Your task to perform on an android device: Open the calendar and show me this week's events Image 0: 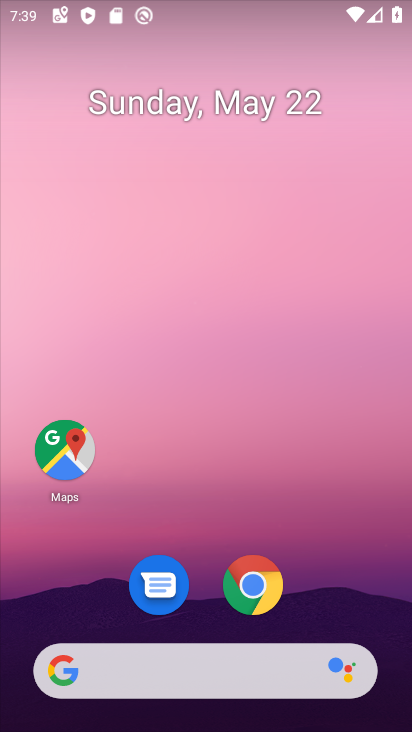
Step 0: drag from (228, 493) to (229, 20)
Your task to perform on an android device: Open the calendar and show me this week's events Image 1: 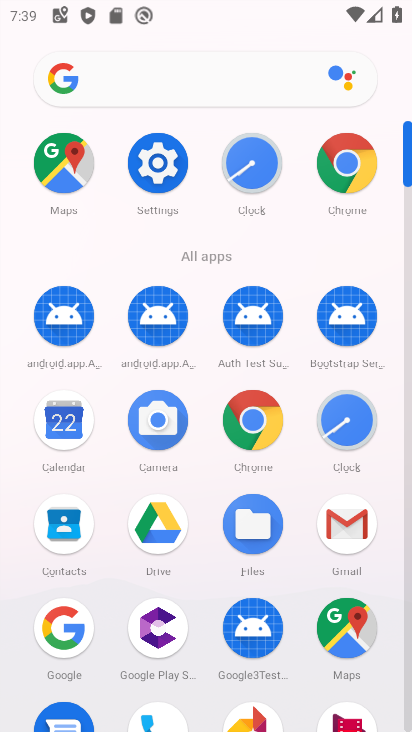
Step 1: click (62, 420)
Your task to perform on an android device: Open the calendar and show me this week's events Image 2: 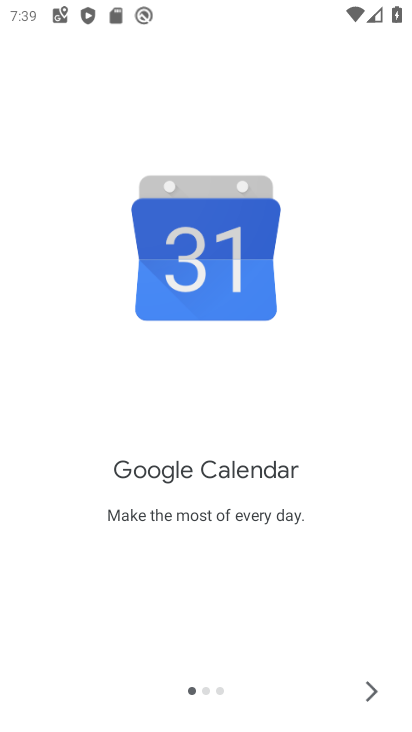
Step 2: click (369, 689)
Your task to perform on an android device: Open the calendar and show me this week's events Image 3: 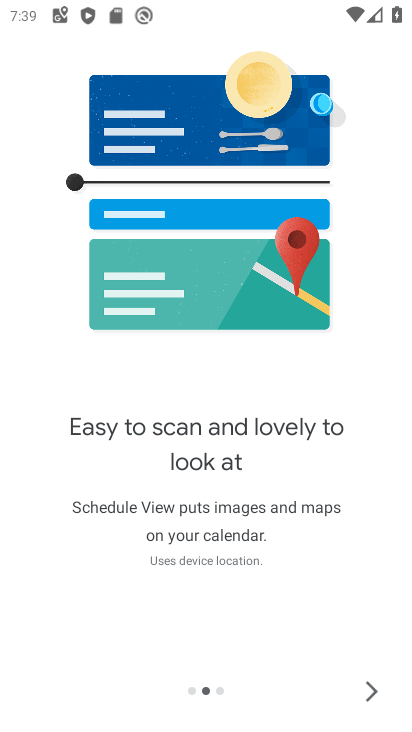
Step 3: click (369, 689)
Your task to perform on an android device: Open the calendar and show me this week's events Image 4: 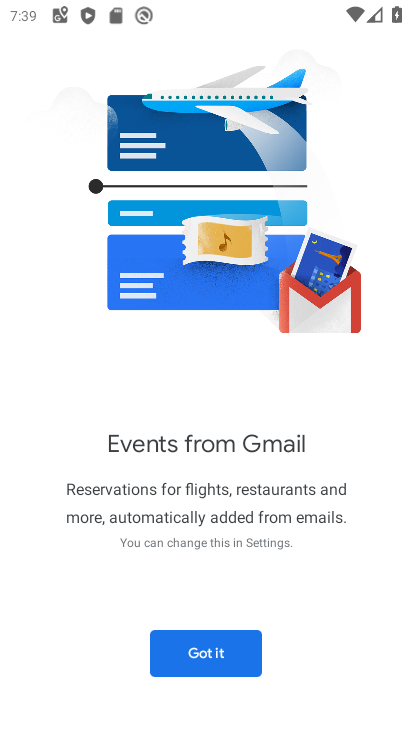
Step 4: click (239, 647)
Your task to perform on an android device: Open the calendar and show me this week's events Image 5: 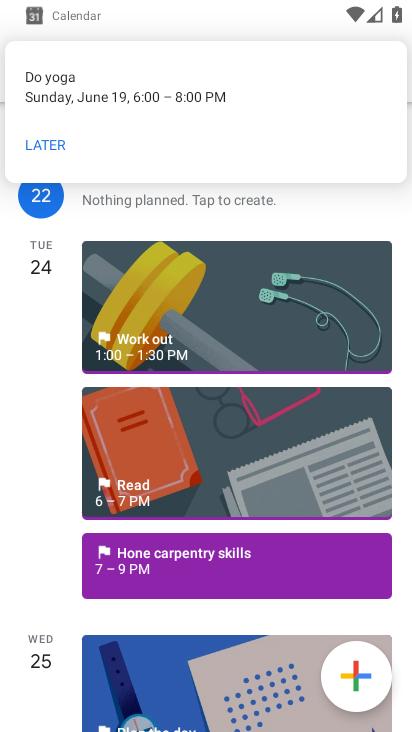
Step 5: click (40, 136)
Your task to perform on an android device: Open the calendar and show me this week's events Image 6: 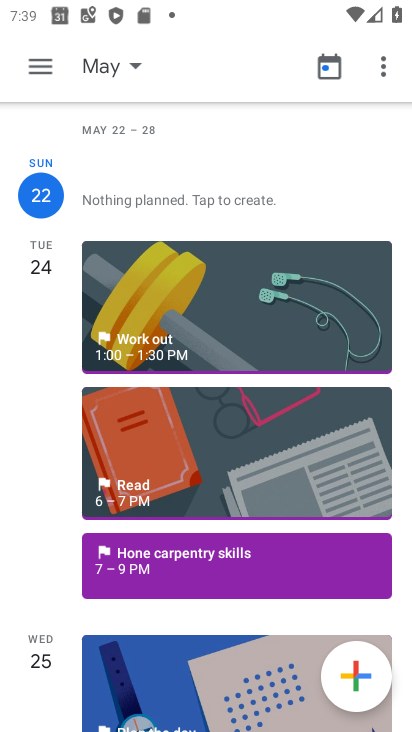
Step 6: click (39, 62)
Your task to perform on an android device: Open the calendar and show me this week's events Image 7: 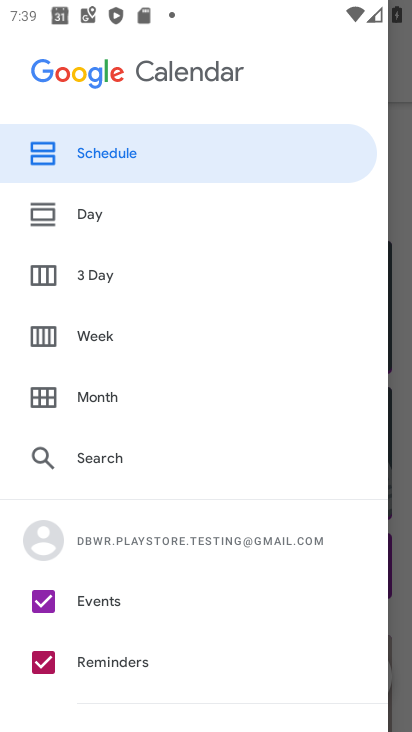
Step 7: click (37, 334)
Your task to perform on an android device: Open the calendar and show me this week's events Image 8: 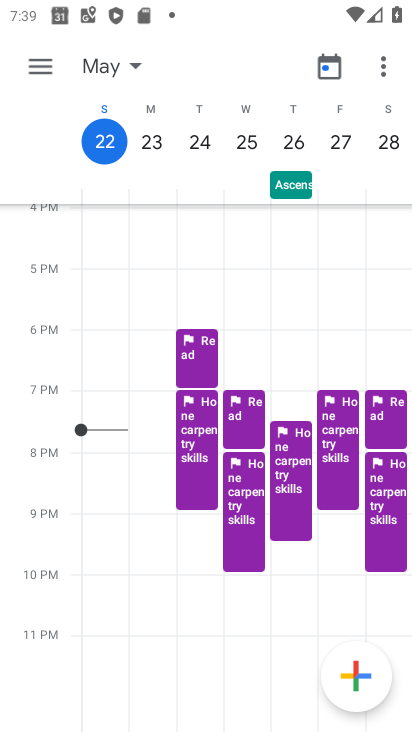
Step 8: task complete